Your task to perform on an android device: empty trash in the gmail app Image 0: 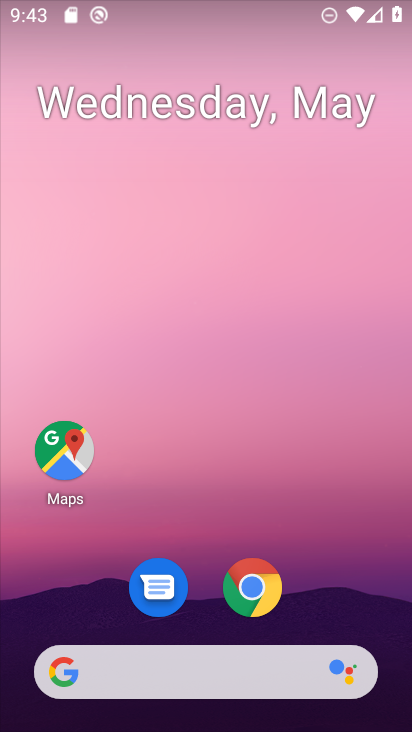
Step 0: drag from (211, 724) to (222, 156)
Your task to perform on an android device: empty trash in the gmail app Image 1: 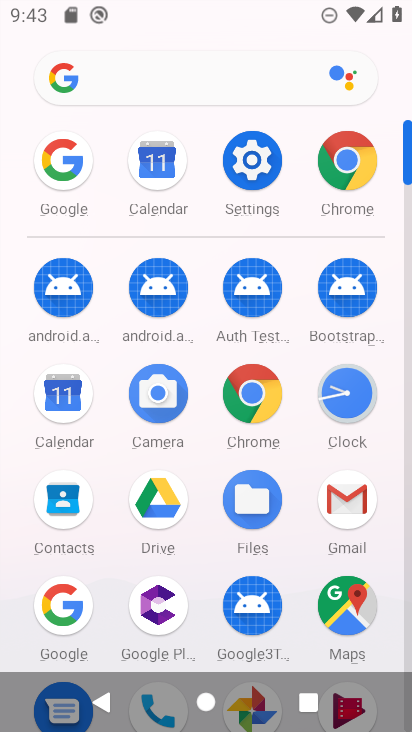
Step 1: click (342, 498)
Your task to perform on an android device: empty trash in the gmail app Image 2: 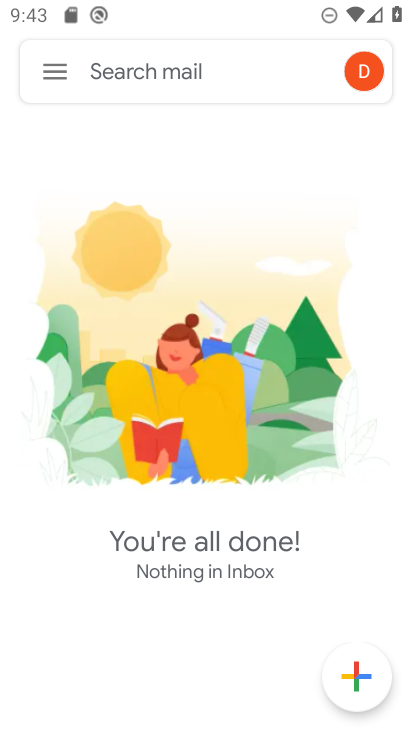
Step 2: click (42, 64)
Your task to perform on an android device: empty trash in the gmail app Image 3: 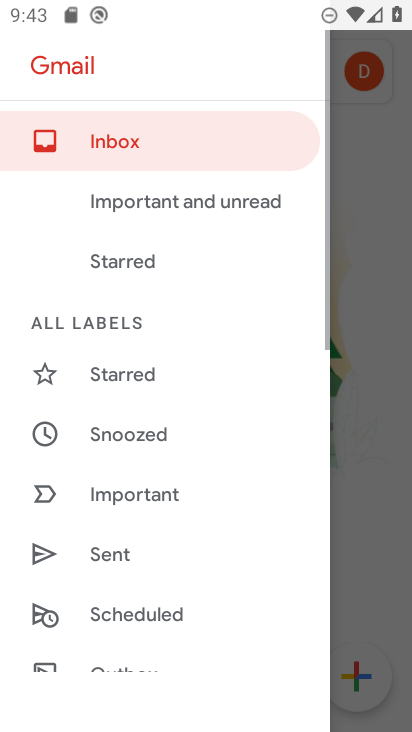
Step 3: drag from (144, 638) to (147, 279)
Your task to perform on an android device: empty trash in the gmail app Image 4: 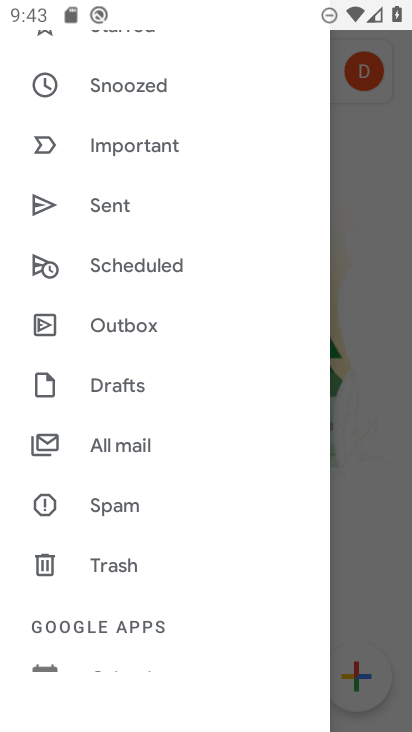
Step 4: click (104, 567)
Your task to perform on an android device: empty trash in the gmail app Image 5: 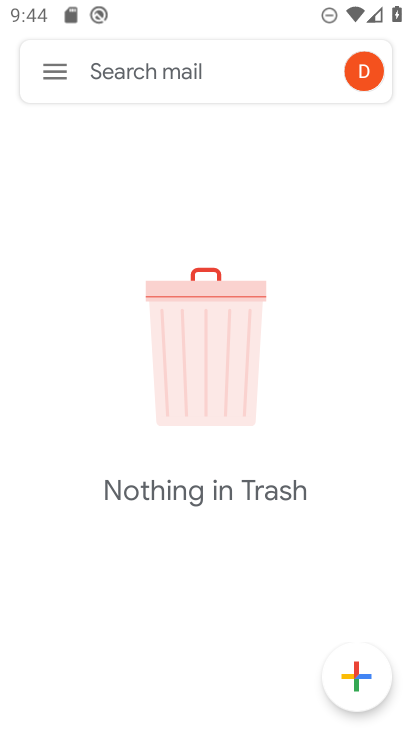
Step 5: task complete